Your task to perform on an android device: Clear the cart on newegg. Add macbook pro 15 inch to the cart on newegg, then select checkout. Image 0: 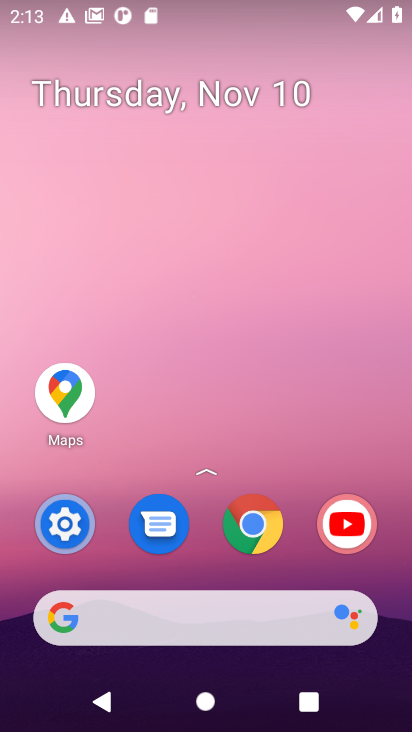
Step 0: click (261, 529)
Your task to perform on an android device: Clear the cart on newegg. Add macbook pro 15 inch to the cart on newegg, then select checkout. Image 1: 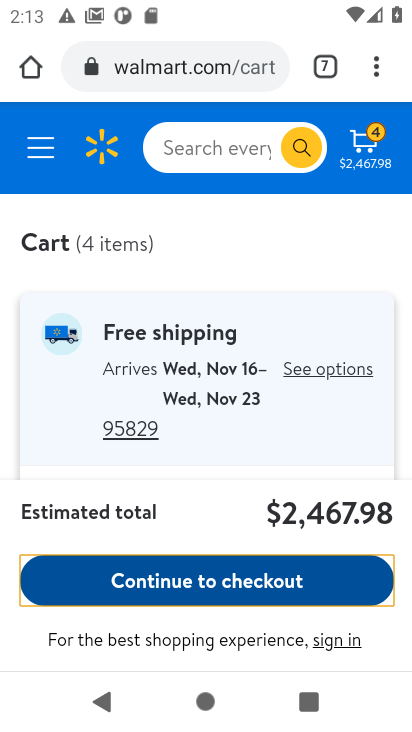
Step 1: click (326, 61)
Your task to perform on an android device: Clear the cart on newegg. Add macbook pro 15 inch to the cart on newegg, then select checkout. Image 2: 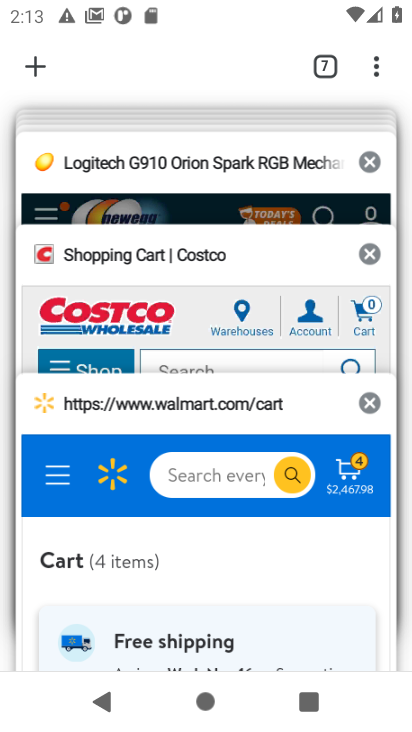
Step 2: drag from (215, 139) to (221, 228)
Your task to perform on an android device: Clear the cart on newegg. Add macbook pro 15 inch to the cart on newegg, then select checkout. Image 3: 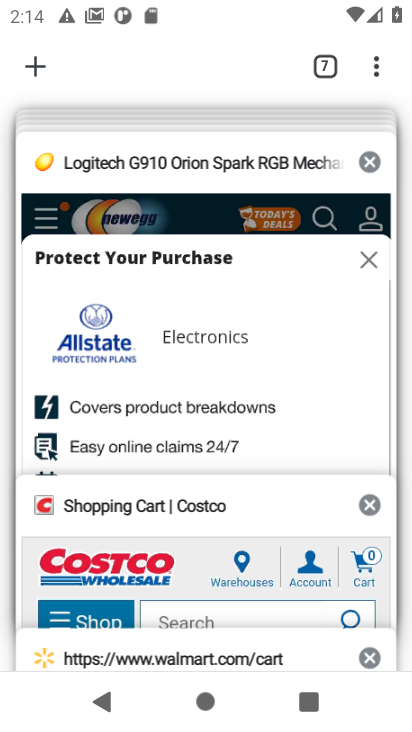
Step 3: click (231, 181)
Your task to perform on an android device: Clear the cart on newegg. Add macbook pro 15 inch to the cart on newegg, then select checkout. Image 4: 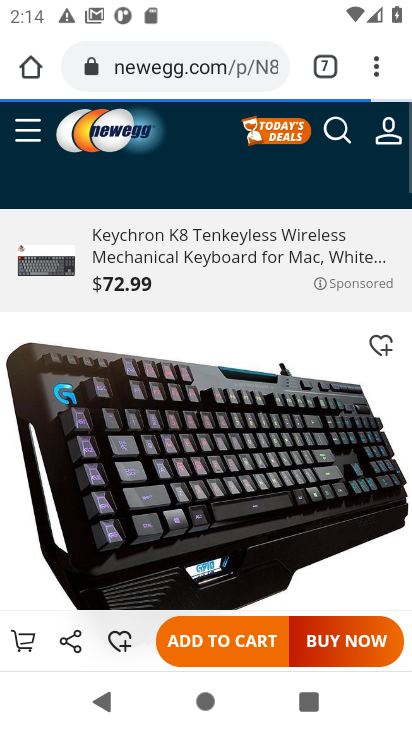
Step 4: click (385, 174)
Your task to perform on an android device: Clear the cart on newegg. Add macbook pro 15 inch to the cart on newegg, then select checkout. Image 5: 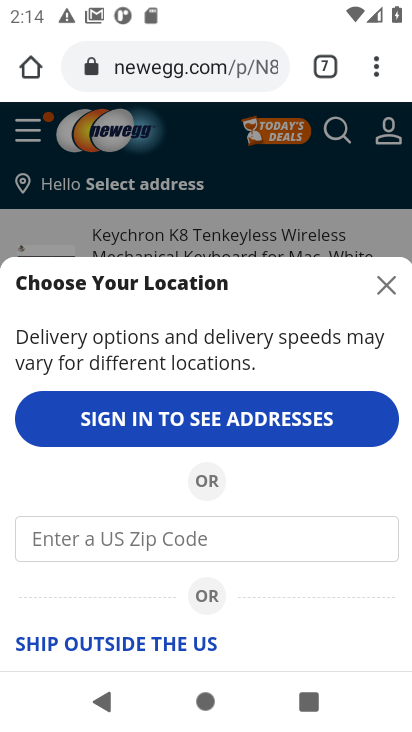
Step 5: click (390, 281)
Your task to perform on an android device: Clear the cart on newegg. Add macbook pro 15 inch to the cart on newegg, then select checkout. Image 6: 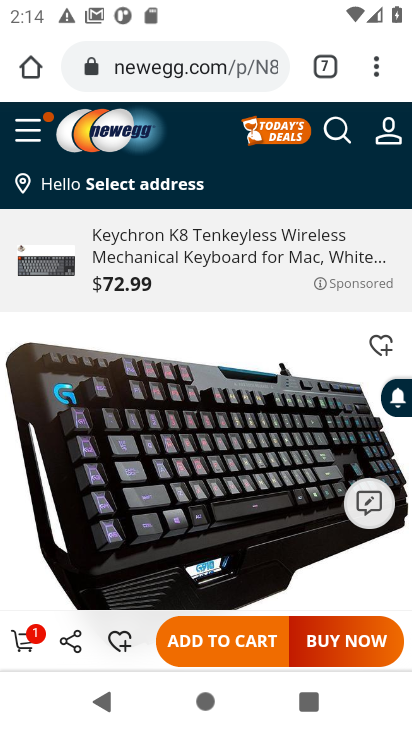
Step 6: click (36, 642)
Your task to perform on an android device: Clear the cart on newegg. Add macbook pro 15 inch to the cart on newegg, then select checkout. Image 7: 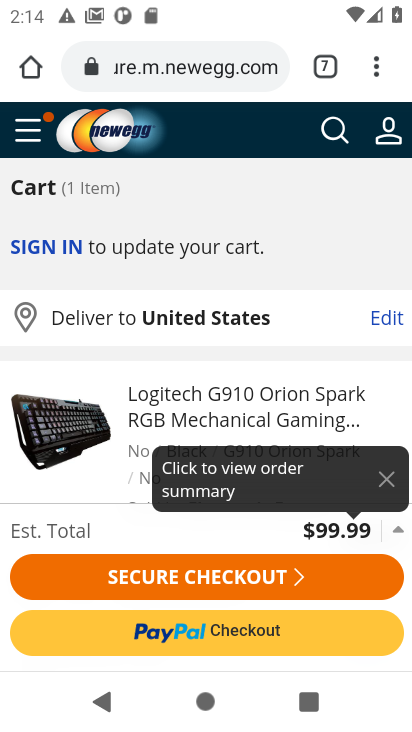
Step 7: drag from (102, 477) to (101, 258)
Your task to perform on an android device: Clear the cart on newegg. Add macbook pro 15 inch to the cart on newegg, then select checkout. Image 8: 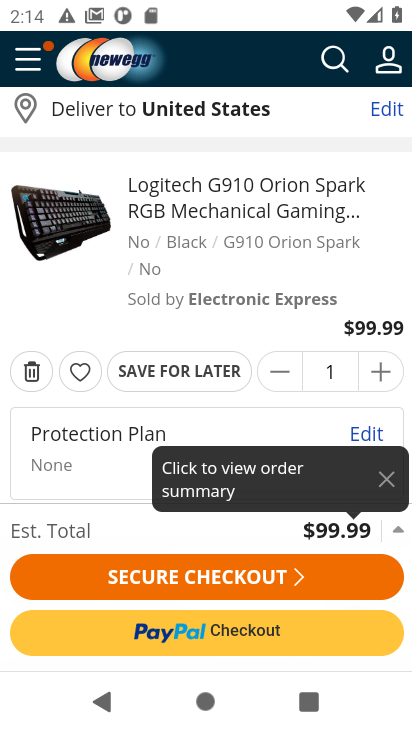
Step 8: click (389, 476)
Your task to perform on an android device: Clear the cart on newegg. Add macbook pro 15 inch to the cart on newegg, then select checkout. Image 9: 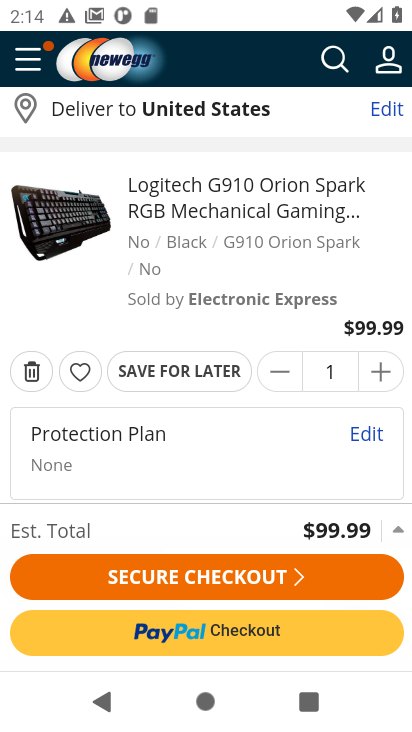
Step 9: click (28, 369)
Your task to perform on an android device: Clear the cart on newegg. Add macbook pro 15 inch to the cart on newegg, then select checkout. Image 10: 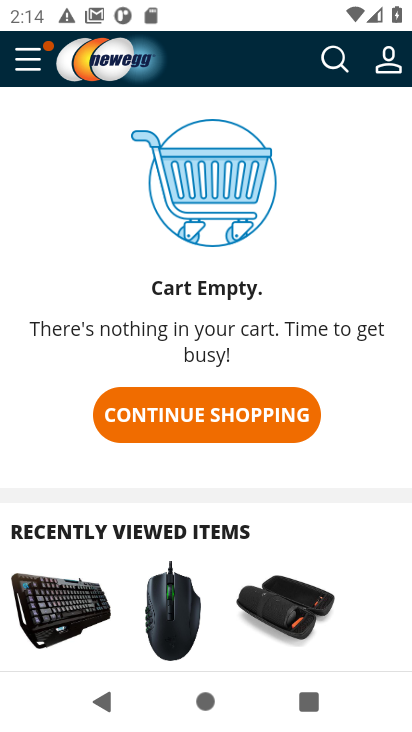
Step 10: click (331, 59)
Your task to perform on an android device: Clear the cart on newegg. Add macbook pro 15 inch to the cart on newegg, then select checkout. Image 11: 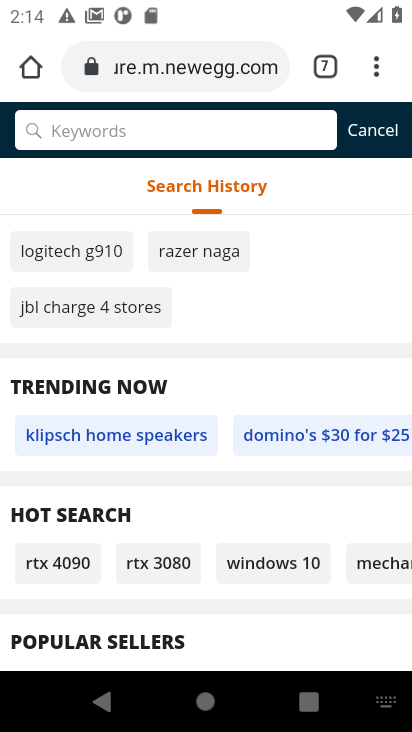
Step 11: type "macbook pro 15 inch"
Your task to perform on an android device: Clear the cart on newegg. Add macbook pro 15 inch to the cart on newegg, then select checkout. Image 12: 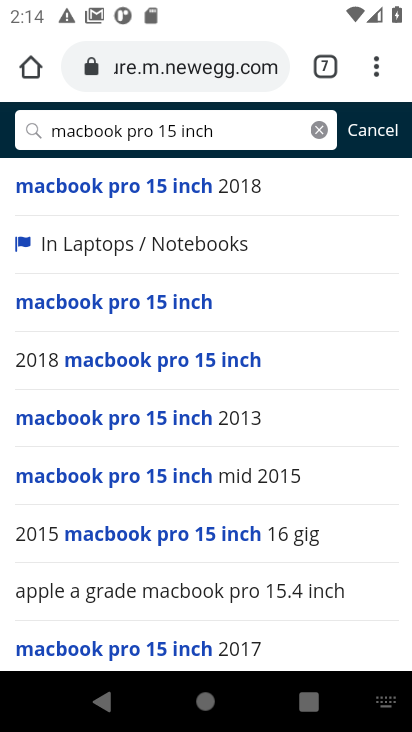
Step 12: click (166, 188)
Your task to perform on an android device: Clear the cart on newegg. Add macbook pro 15 inch to the cart on newegg, then select checkout. Image 13: 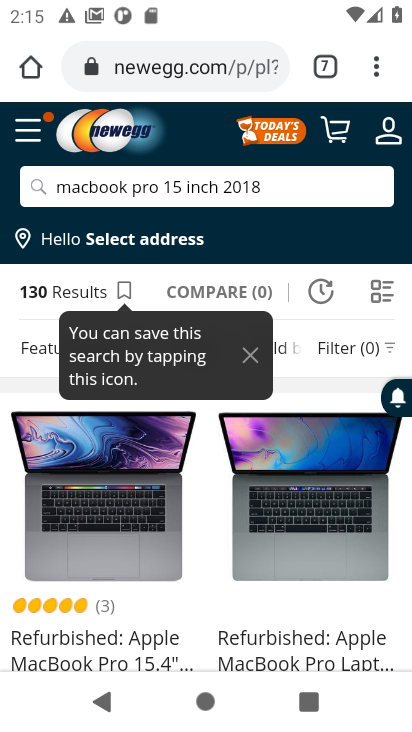
Step 13: click (168, 636)
Your task to perform on an android device: Clear the cart on newegg. Add macbook pro 15 inch to the cart on newegg, then select checkout. Image 14: 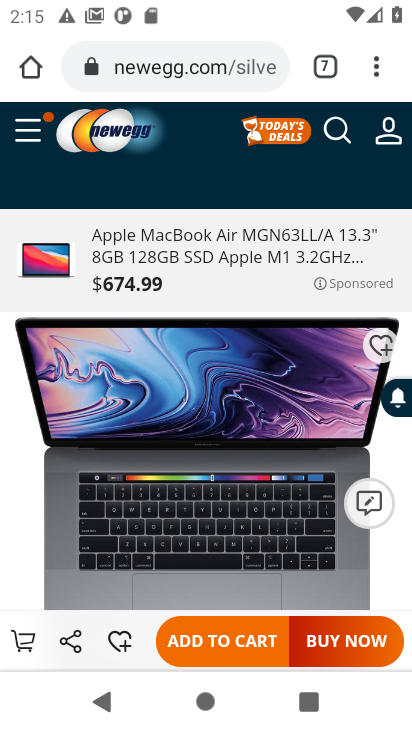
Step 14: click (237, 643)
Your task to perform on an android device: Clear the cart on newegg. Add macbook pro 15 inch to the cart on newegg, then select checkout. Image 15: 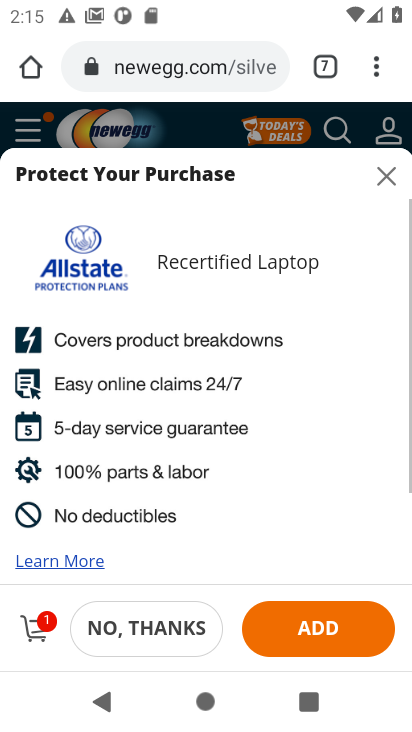
Step 15: click (38, 627)
Your task to perform on an android device: Clear the cart on newegg. Add macbook pro 15 inch to the cart on newegg, then select checkout. Image 16: 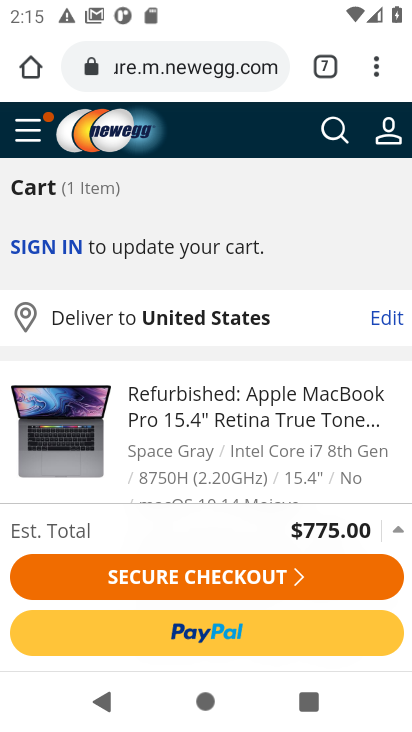
Step 16: click (133, 572)
Your task to perform on an android device: Clear the cart on newegg. Add macbook pro 15 inch to the cart on newegg, then select checkout. Image 17: 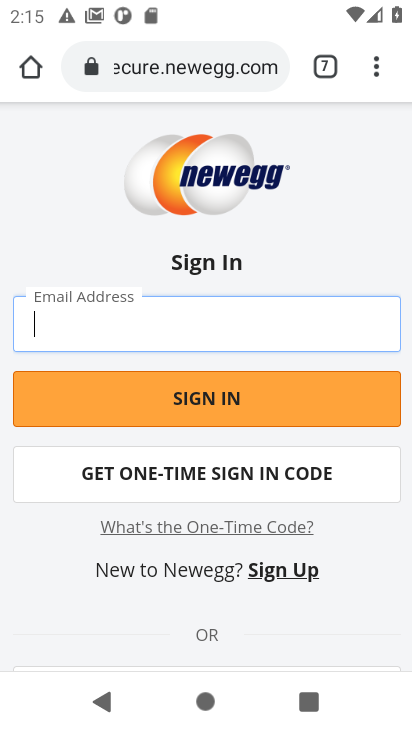
Step 17: task complete